Your task to perform on an android device: Open a new Chrome window Image 0: 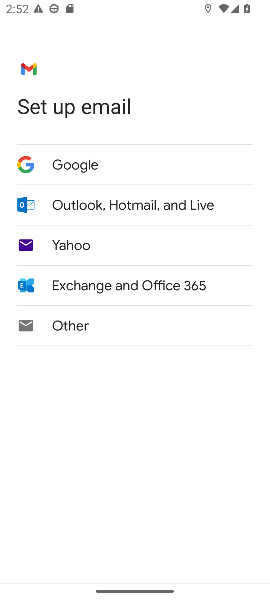
Step 0: press home button
Your task to perform on an android device: Open a new Chrome window Image 1: 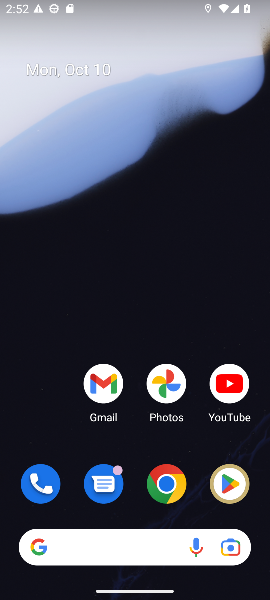
Step 1: click (173, 487)
Your task to perform on an android device: Open a new Chrome window Image 2: 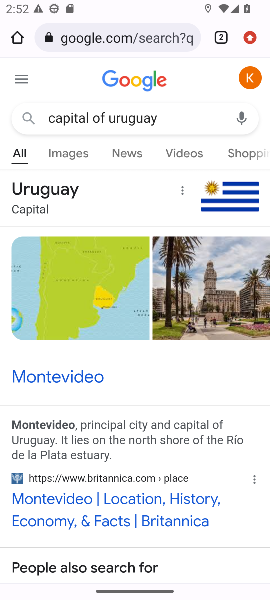
Step 2: click (228, 42)
Your task to perform on an android device: Open a new Chrome window Image 3: 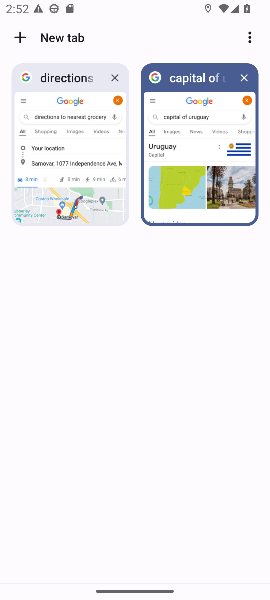
Step 3: click (22, 31)
Your task to perform on an android device: Open a new Chrome window Image 4: 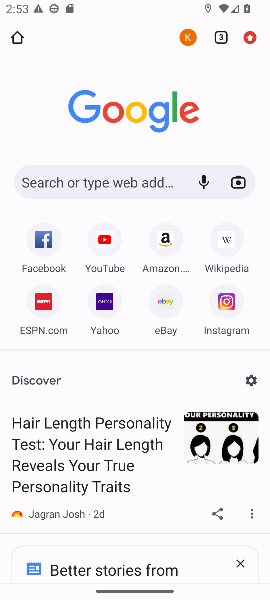
Step 4: click (167, 402)
Your task to perform on an android device: Open a new Chrome window Image 5: 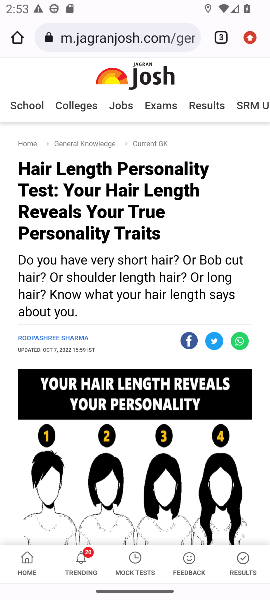
Step 5: drag from (153, 324) to (174, 193)
Your task to perform on an android device: Open a new Chrome window Image 6: 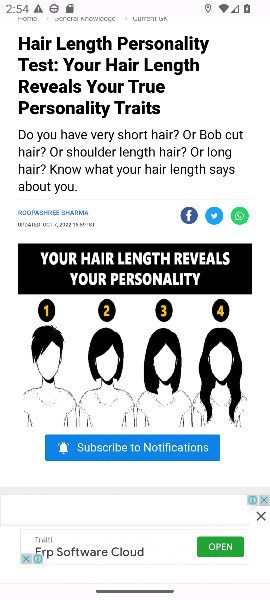
Step 6: drag from (241, 444) to (157, 214)
Your task to perform on an android device: Open a new Chrome window Image 7: 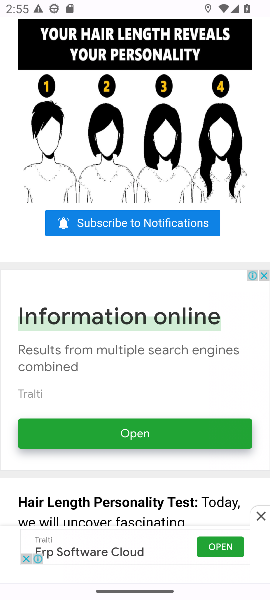
Step 7: press home button
Your task to perform on an android device: Open a new Chrome window Image 8: 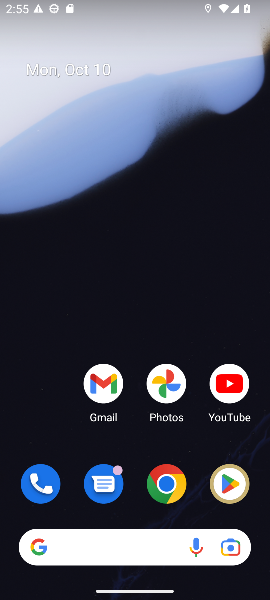
Step 8: click (156, 477)
Your task to perform on an android device: Open a new Chrome window Image 9: 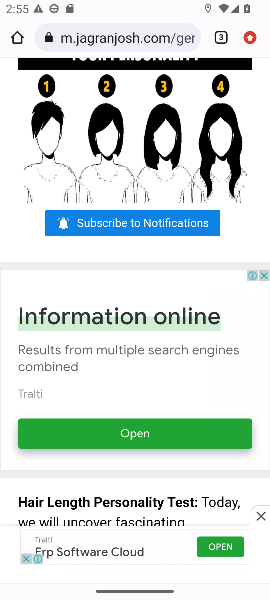
Step 9: click (224, 34)
Your task to perform on an android device: Open a new Chrome window Image 10: 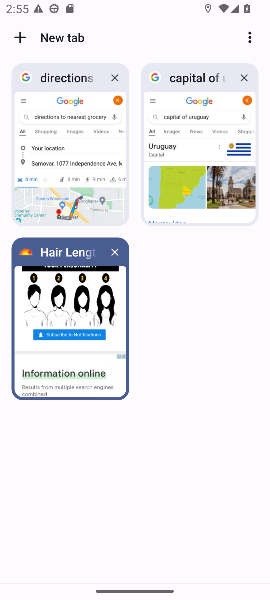
Step 10: click (13, 41)
Your task to perform on an android device: Open a new Chrome window Image 11: 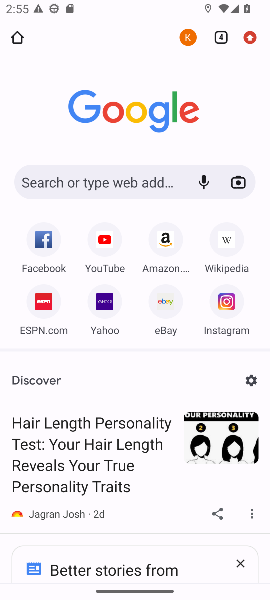
Step 11: task complete